Your task to perform on an android device: Open the Play Movies app and select the watchlist tab. Image 0: 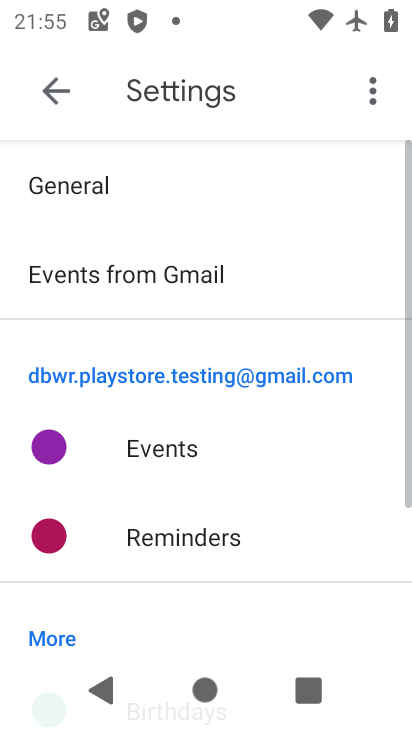
Step 0: press home button
Your task to perform on an android device: Open the Play Movies app and select the watchlist tab. Image 1: 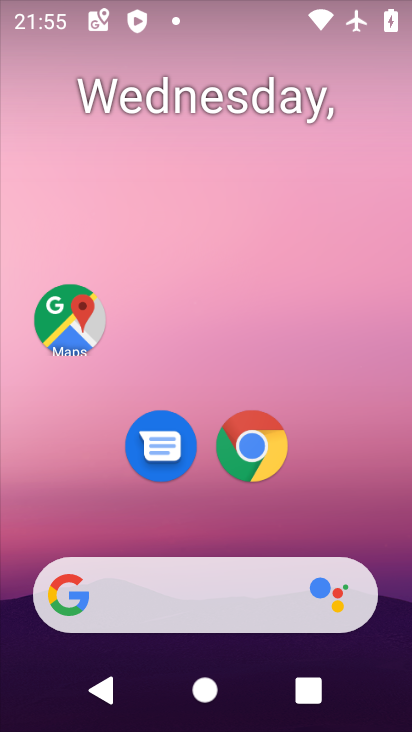
Step 1: drag from (228, 596) to (338, 1)
Your task to perform on an android device: Open the Play Movies app and select the watchlist tab. Image 2: 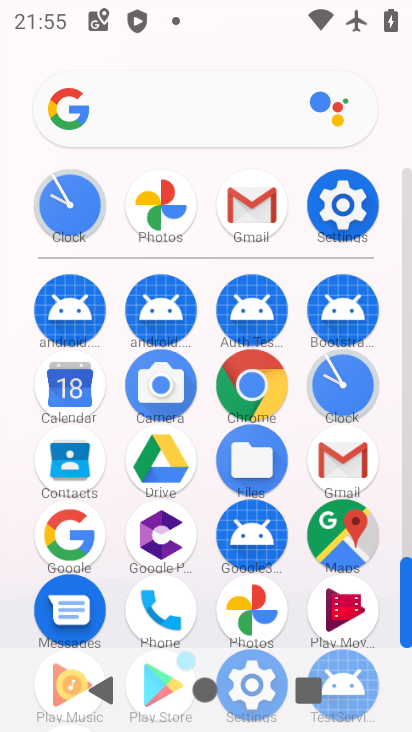
Step 2: click (340, 616)
Your task to perform on an android device: Open the Play Movies app and select the watchlist tab. Image 3: 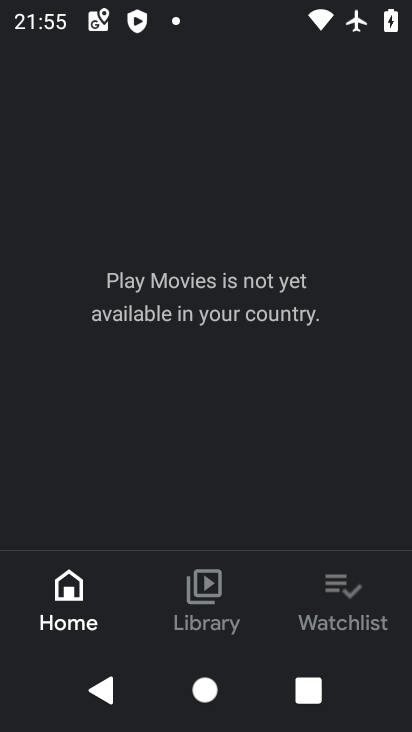
Step 3: click (340, 617)
Your task to perform on an android device: Open the Play Movies app and select the watchlist tab. Image 4: 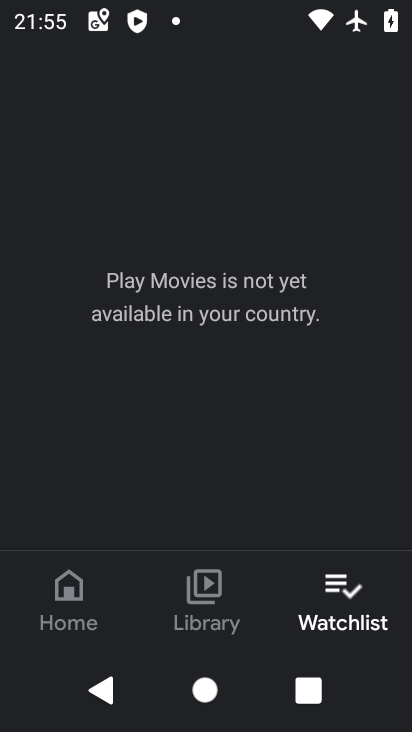
Step 4: task complete